Your task to perform on an android device: check android version Image 0: 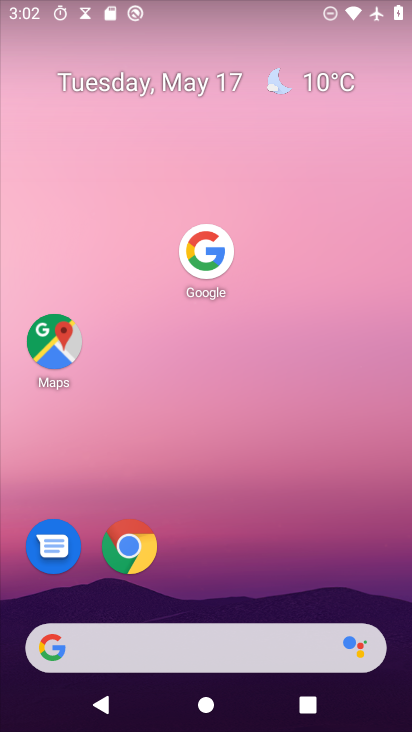
Step 0: press home button
Your task to perform on an android device: check android version Image 1: 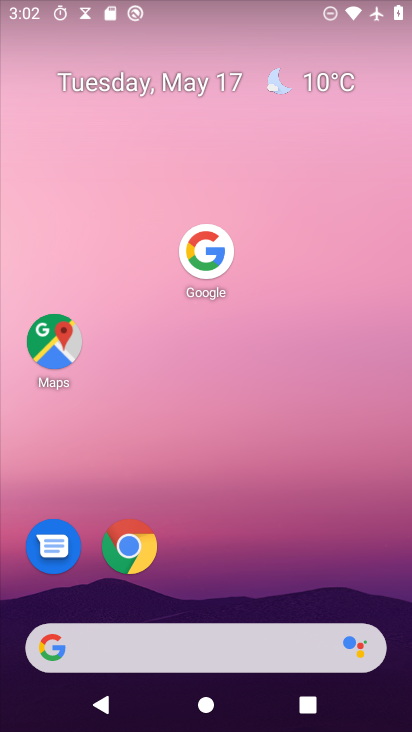
Step 1: drag from (166, 624) to (312, 85)
Your task to perform on an android device: check android version Image 2: 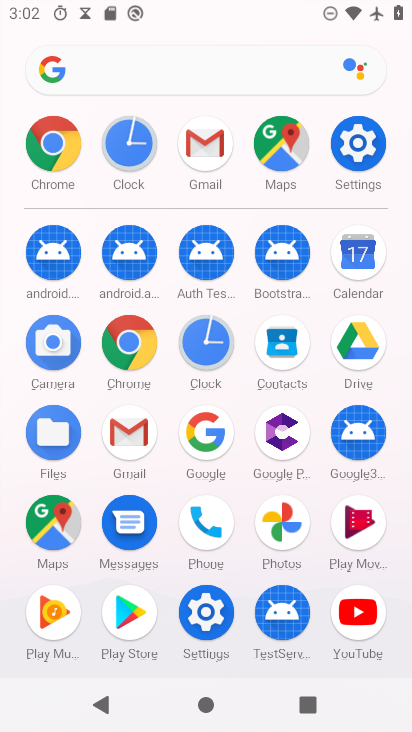
Step 2: click (364, 143)
Your task to perform on an android device: check android version Image 3: 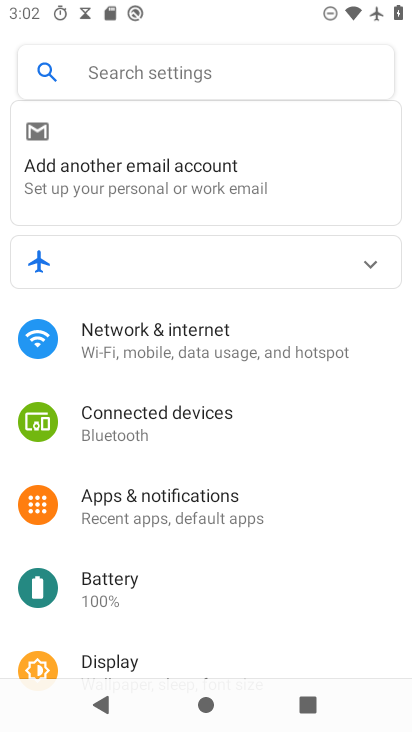
Step 3: drag from (232, 630) to (364, 73)
Your task to perform on an android device: check android version Image 4: 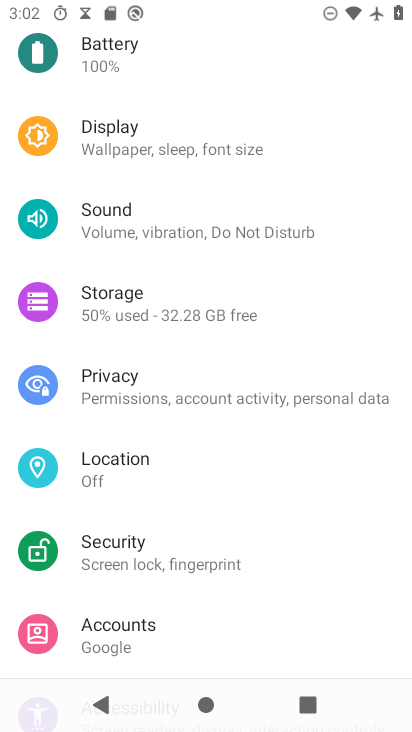
Step 4: drag from (269, 603) to (360, 162)
Your task to perform on an android device: check android version Image 5: 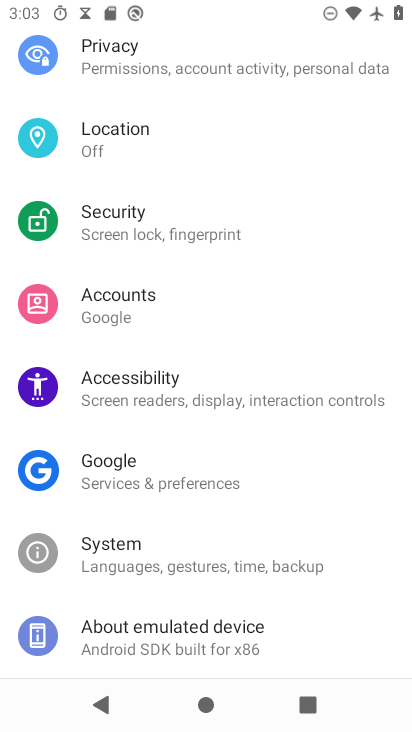
Step 5: click (187, 618)
Your task to perform on an android device: check android version Image 6: 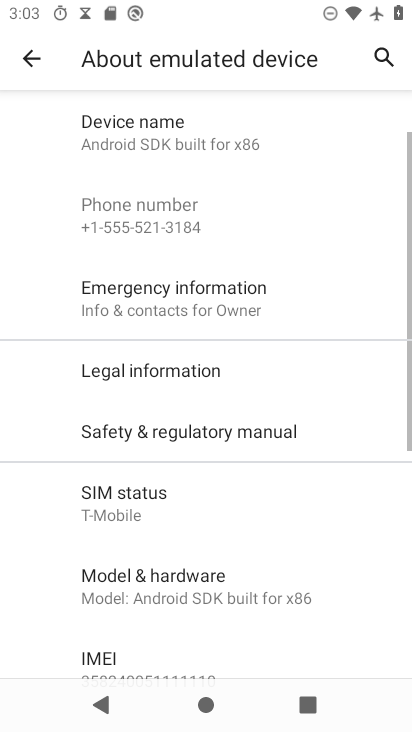
Step 6: drag from (186, 640) to (263, 120)
Your task to perform on an android device: check android version Image 7: 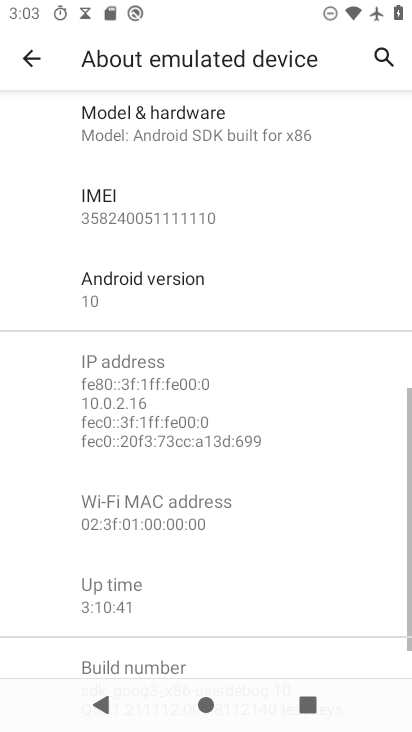
Step 7: click (164, 281)
Your task to perform on an android device: check android version Image 8: 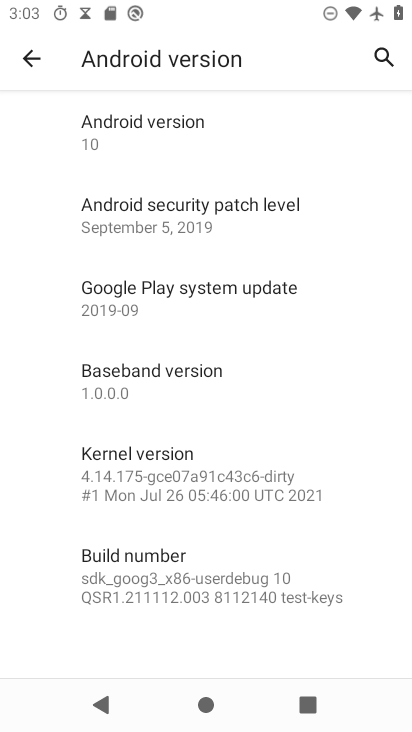
Step 8: task complete